Your task to perform on an android device: open device folders in google photos Image 0: 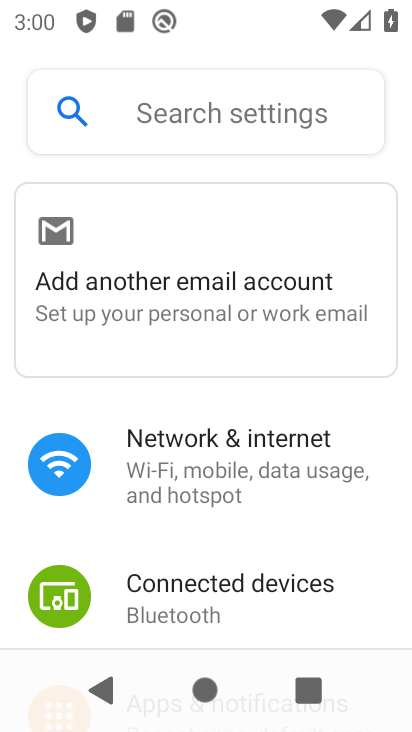
Step 0: press home button
Your task to perform on an android device: open device folders in google photos Image 1: 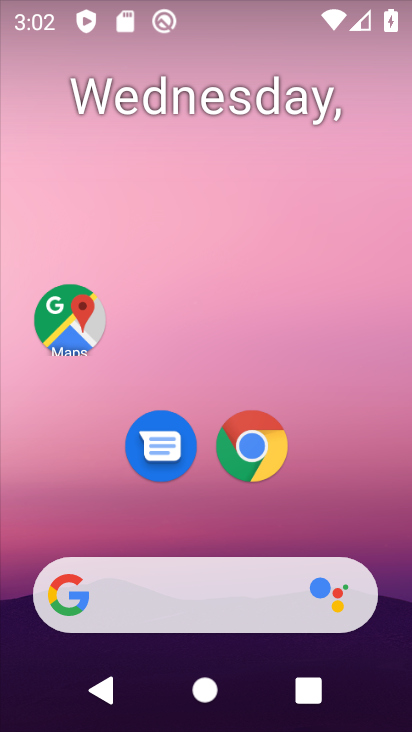
Step 1: drag from (234, 608) to (271, 8)
Your task to perform on an android device: open device folders in google photos Image 2: 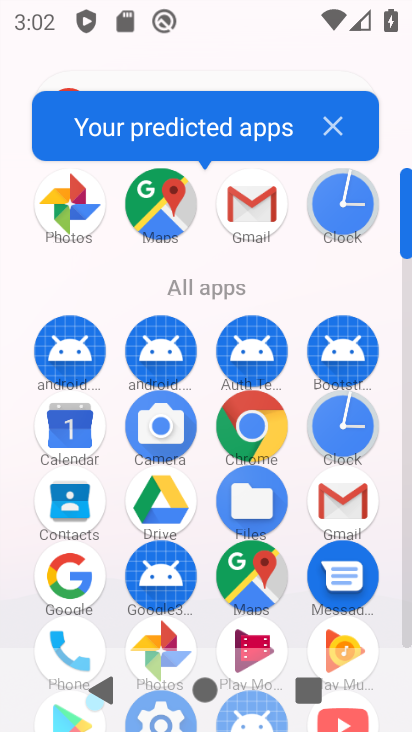
Step 2: click (71, 209)
Your task to perform on an android device: open device folders in google photos Image 3: 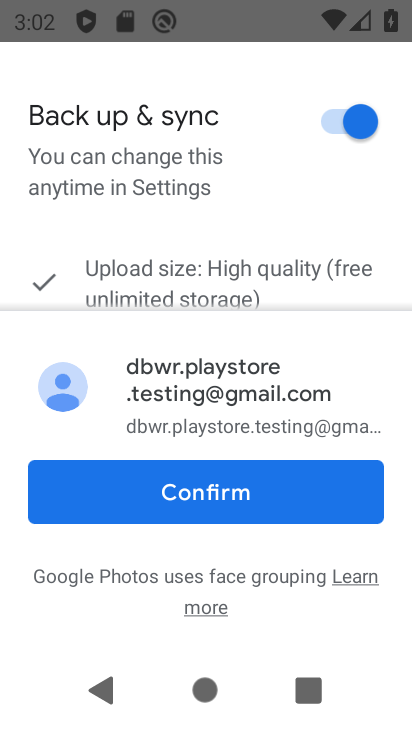
Step 3: click (289, 475)
Your task to perform on an android device: open device folders in google photos Image 4: 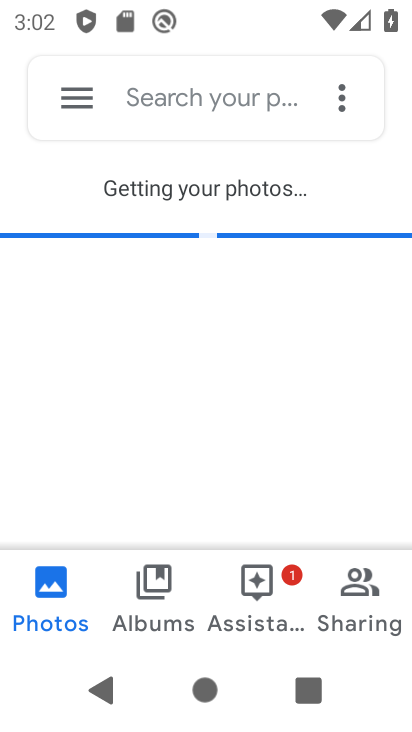
Step 4: click (69, 96)
Your task to perform on an android device: open device folders in google photos Image 5: 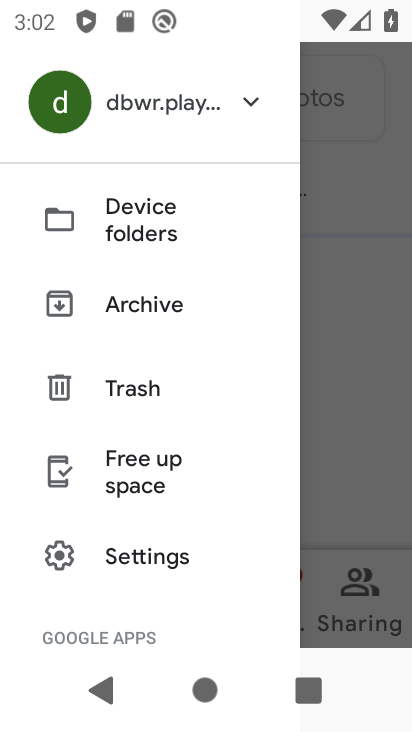
Step 5: click (164, 229)
Your task to perform on an android device: open device folders in google photos Image 6: 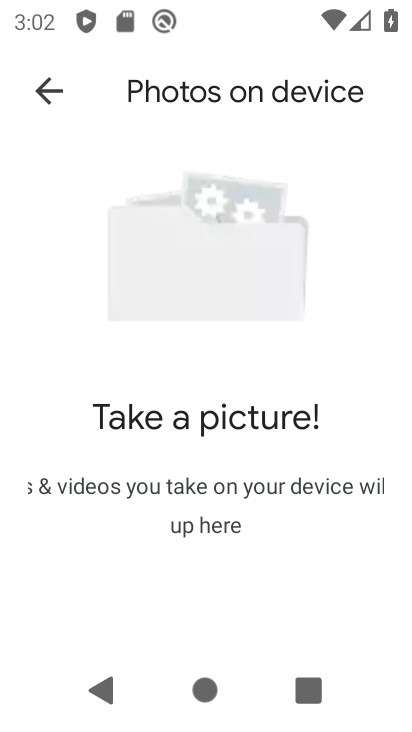
Step 6: task complete